Your task to perform on an android device: turn pop-ups on in chrome Image 0: 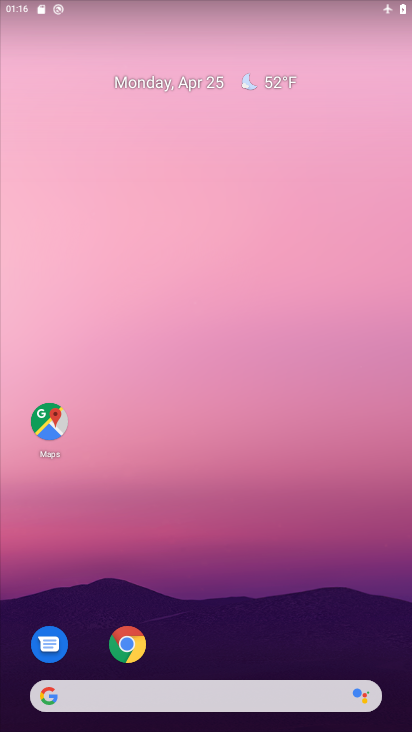
Step 0: click (130, 646)
Your task to perform on an android device: turn pop-ups on in chrome Image 1: 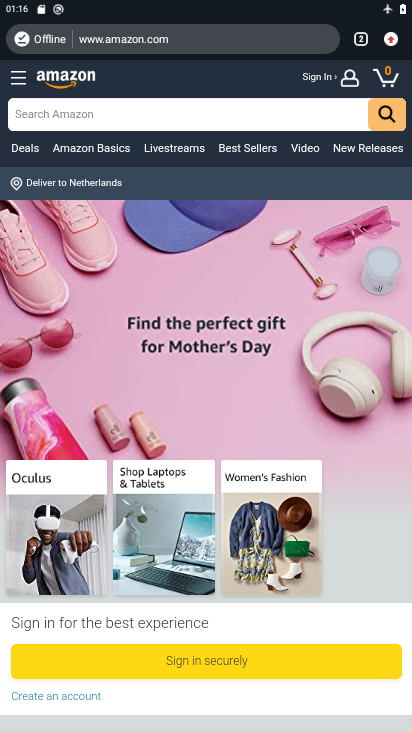
Step 1: click (386, 43)
Your task to perform on an android device: turn pop-ups on in chrome Image 2: 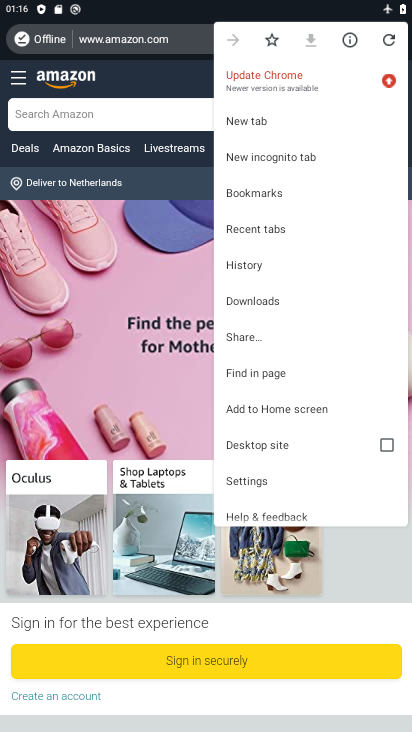
Step 2: click (273, 474)
Your task to perform on an android device: turn pop-ups on in chrome Image 3: 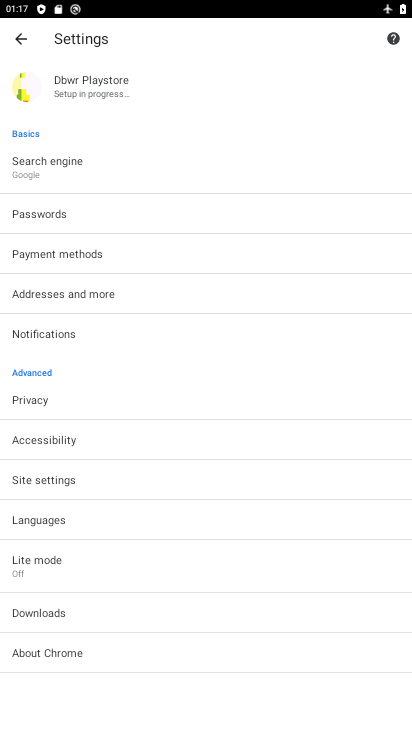
Step 3: click (175, 496)
Your task to perform on an android device: turn pop-ups on in chrome Image 4: 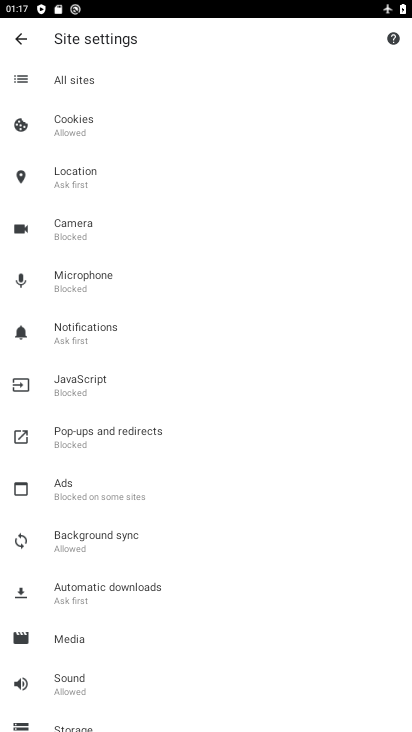
Step 4: click (181, 444)
Your task to perform on an android device: turn pop-ups on in chrome Image 5: 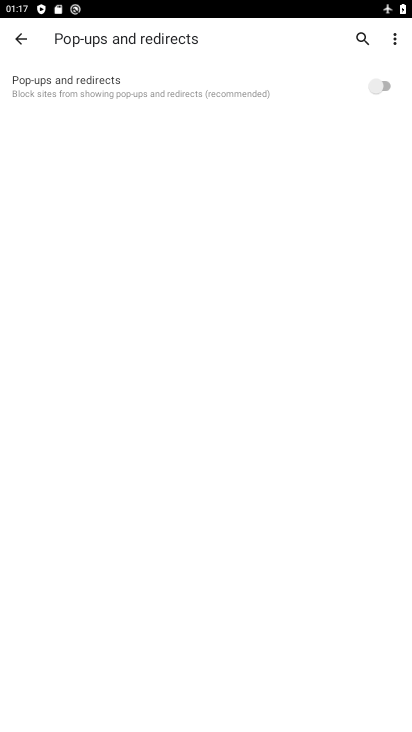
Step 5: click (361, 84)
Your task to perform on an android device: turn pop-ups on in chrome Image 6: 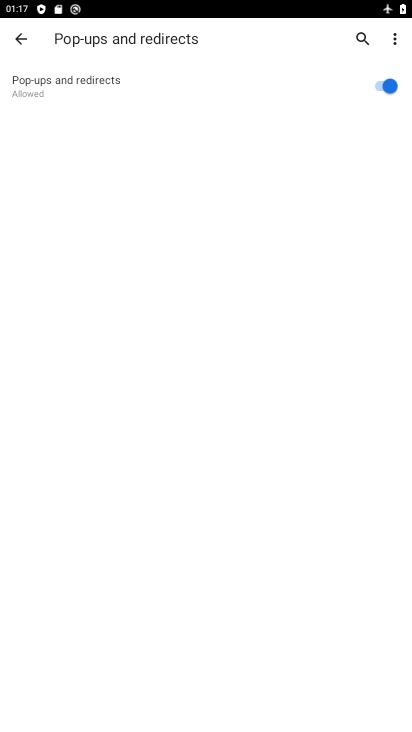
Step 6: task complete